Your task to perform on an android device: check storage Image 0: 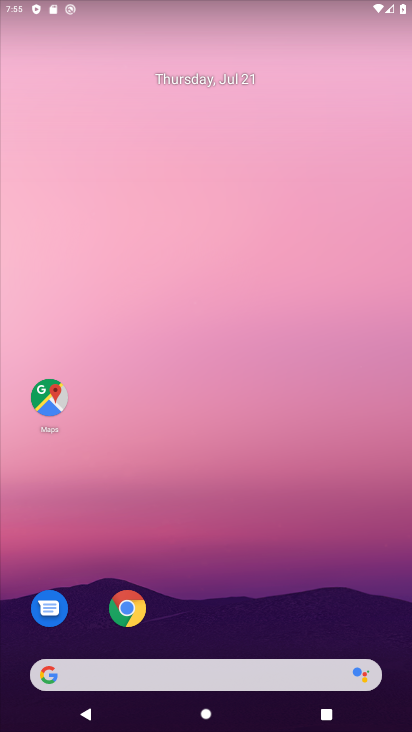
Step 0: press home button
Your task to perform on an android device: check storage Image 1: 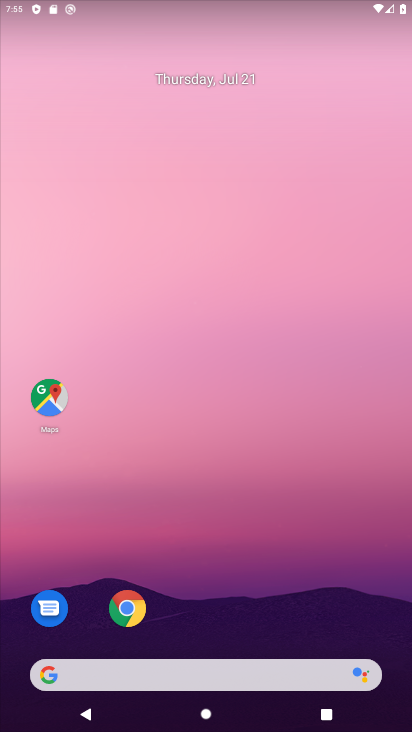
Step 1: drag from (223, 636) to (217, 32)
Your task to perform on an android device: check storage Image 2: 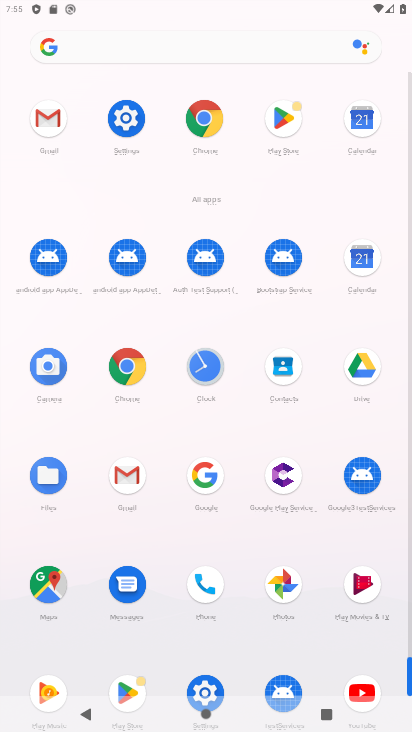
Step 2: click (124, 111)
Your task to perform on an android device: check storage Image 3: 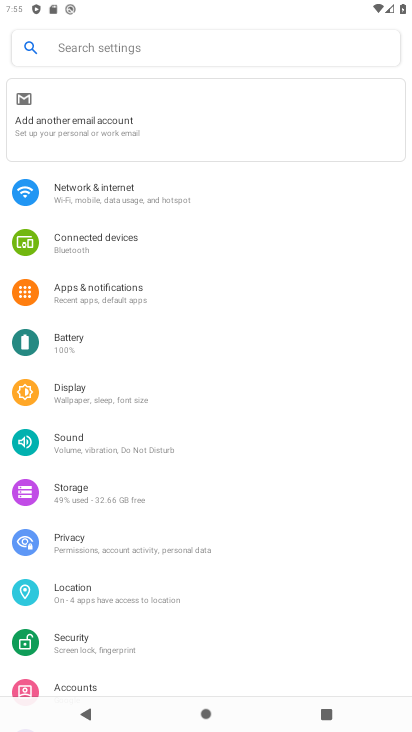
Step 3: click (103, 489)
Your task to perform on an android device: check storage Image 4: 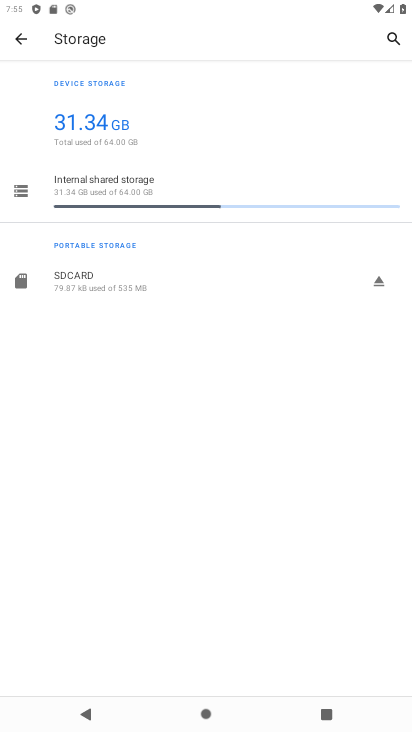
Step 4: task complete